Your task to perform on an android device: uninstall "YouTube Kids" Image 0: 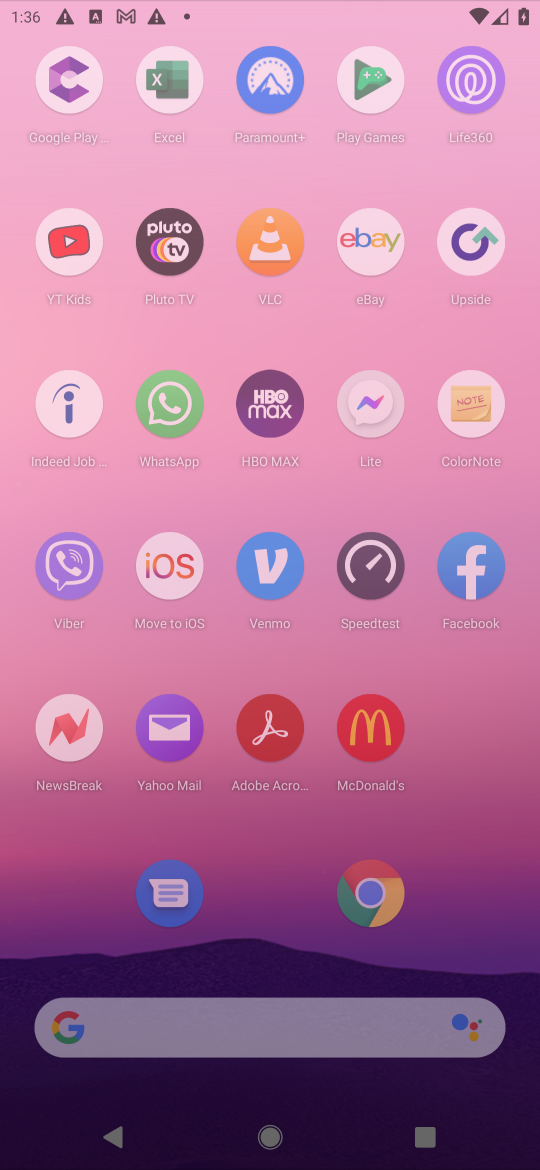
Step 0: press home button
Your task to perform on an android device: uninstall "YouTube Kids" Image 1: 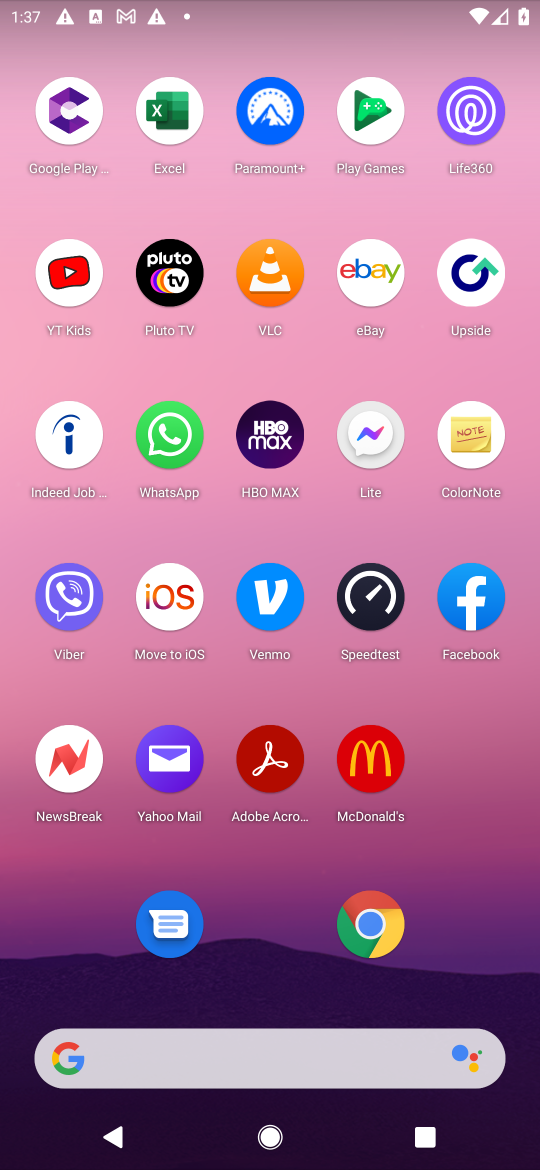
Step 1: drag from (468, 913) to (511, 33)
Your task to perform on an android device: uninstall "YouTube Kids" Image 2: 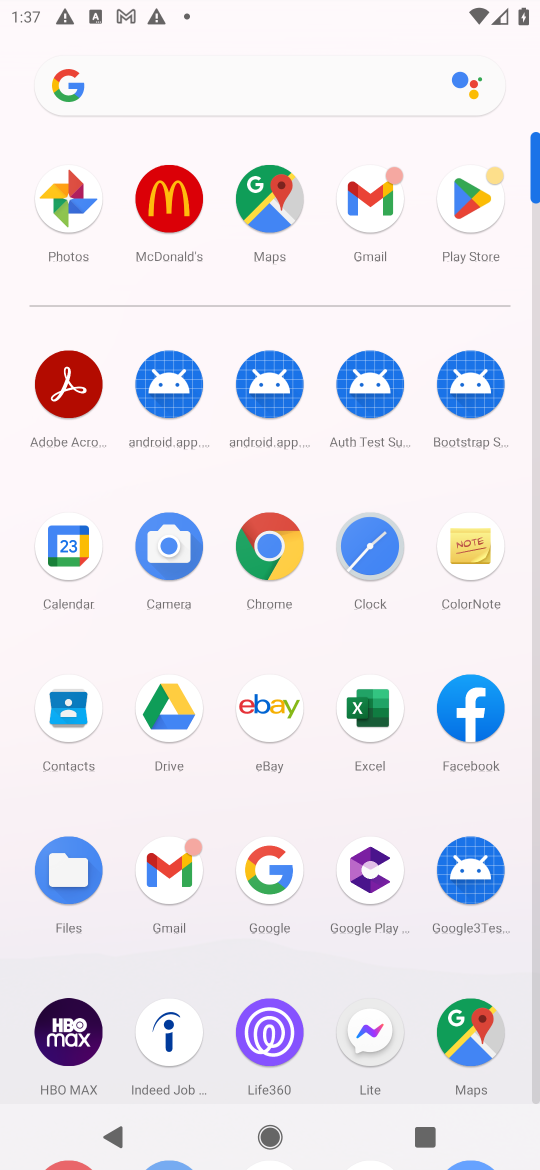
Step 2: click (469, 193)
Your task to perform on an android device: uninstall "YouTube Kids" Image 3: 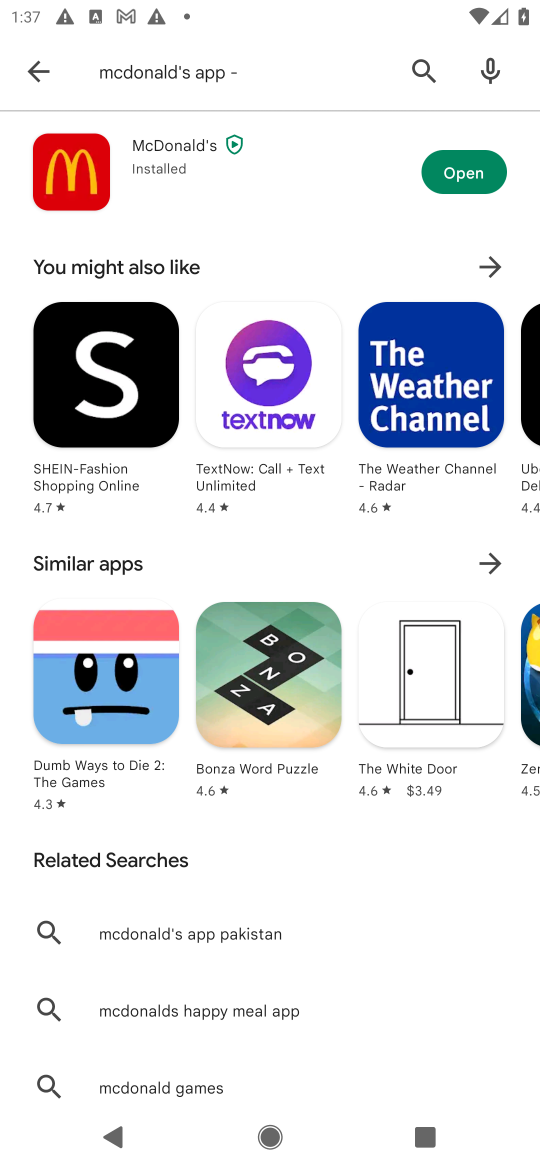
Step 3: press back button
Your task to perform on an android device: uninstall "YouTube Kids" Image 4: 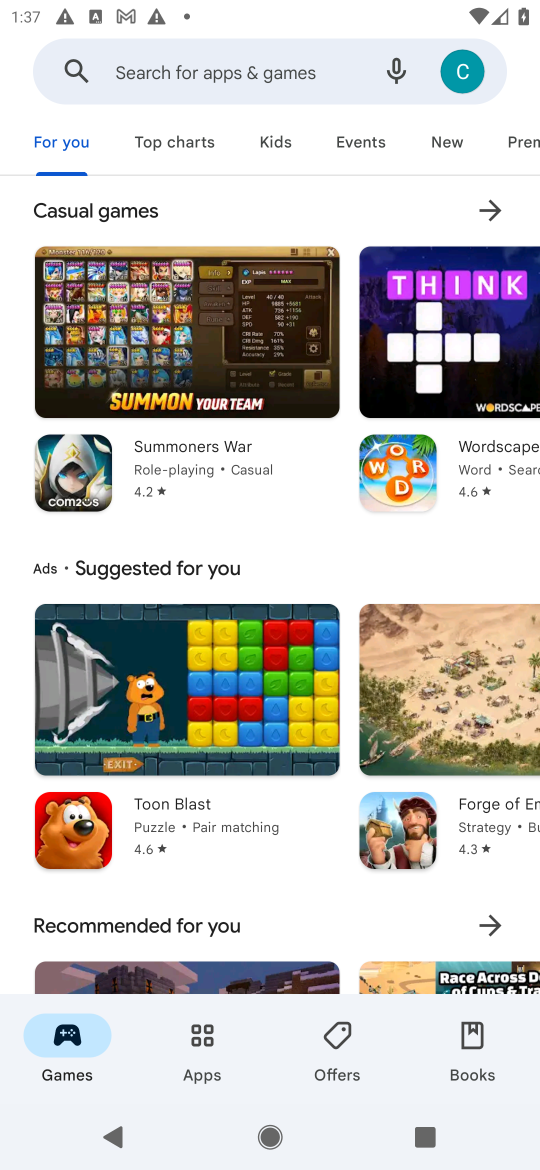
Step 4: click (276, 72)
Your task to perform on an android device: uninstall "YouTube Kids" Image 5: 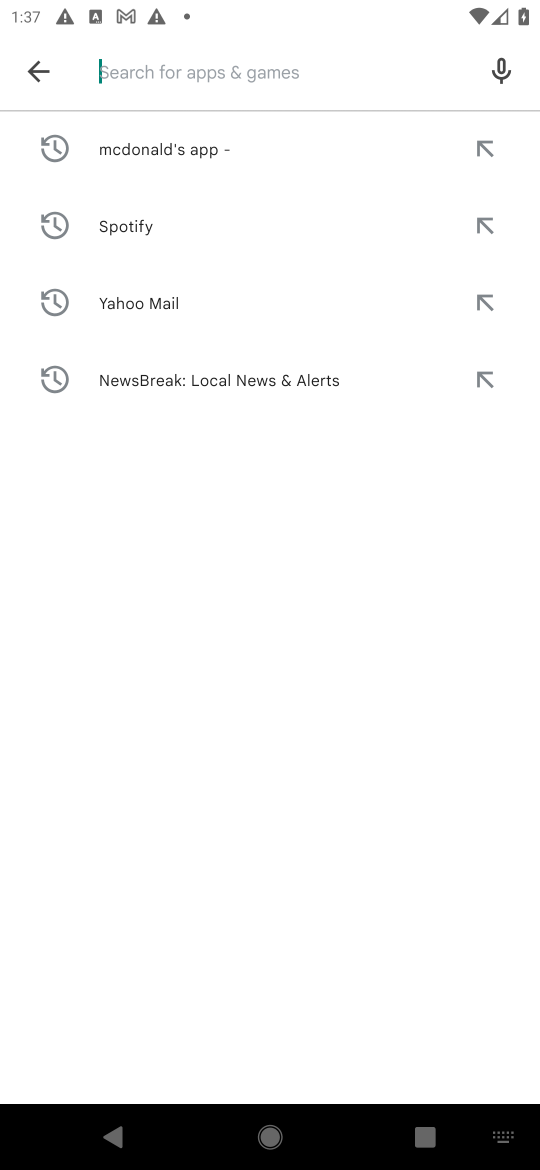
Step 5: press enter
Your task to perform on an android device: uninstall "YouTube Kids" Image 6: 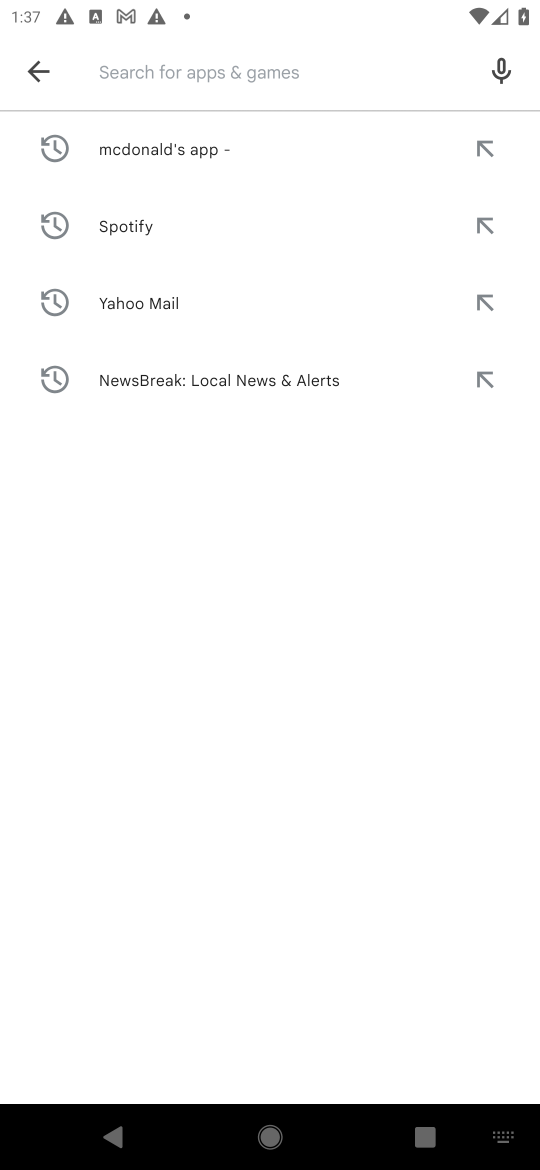
Step 6: type "YouTube Kids"
Your task to perform on an android device: uninstall "YouTube Kids" Image 7: 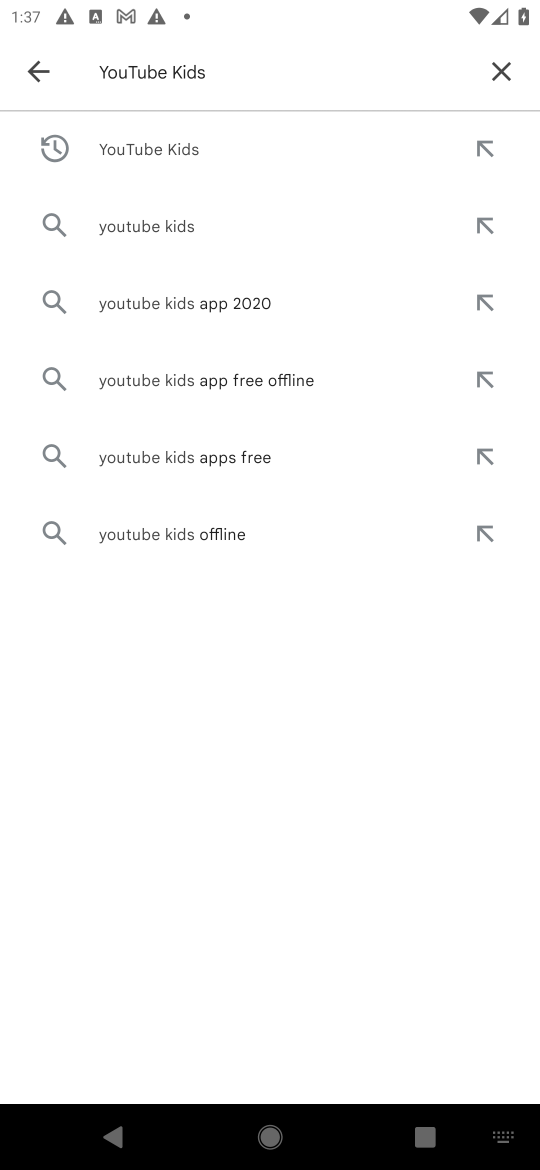
Step 7: click (206, 141)
Your task to perform on an android device: uninstall "YouTube Kids" Image 8: 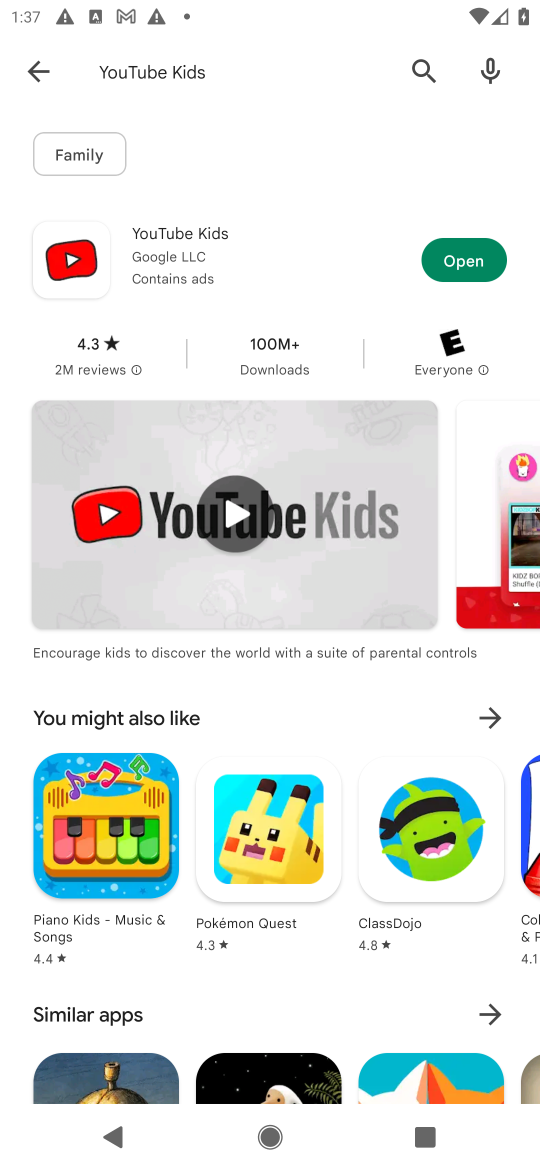
Step 8: task complete